Your task to perform on an android device: toggle location history Image 0: 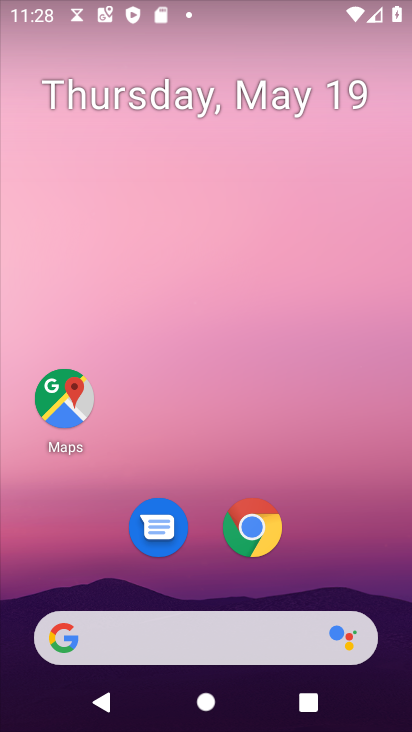
Step 0: drag from (201, 580) to (285, 1)
Your task to perform on an android device: toggle location history Image 1: 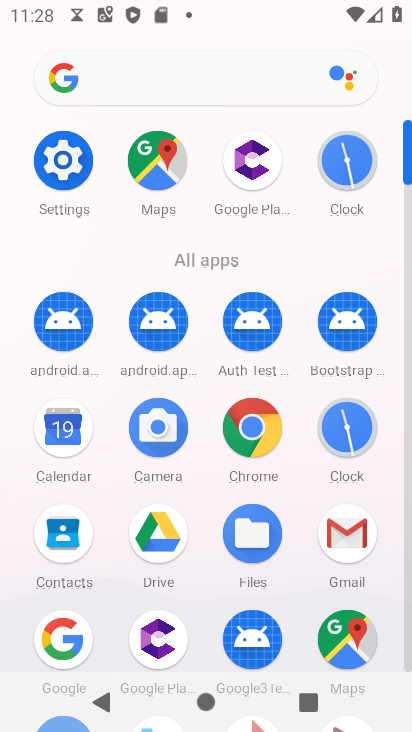
Step 1: click (68, 174)
Your task to perform on an android device: toggle location history Image 2: 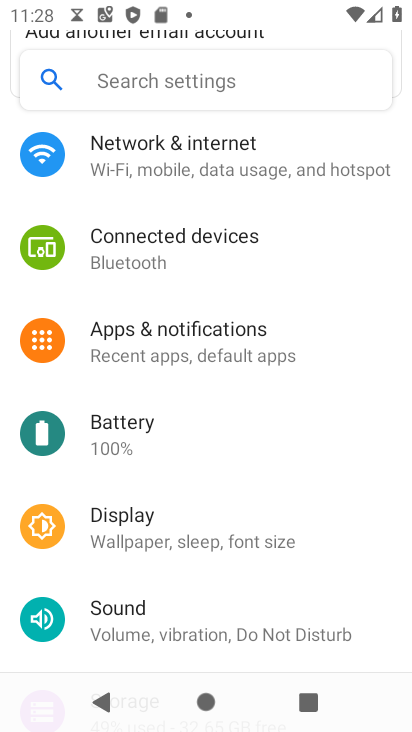
Step 2: drag from (209, 564) to (230, 358)
Your task to perform on an android device: toggle location history Image 3: 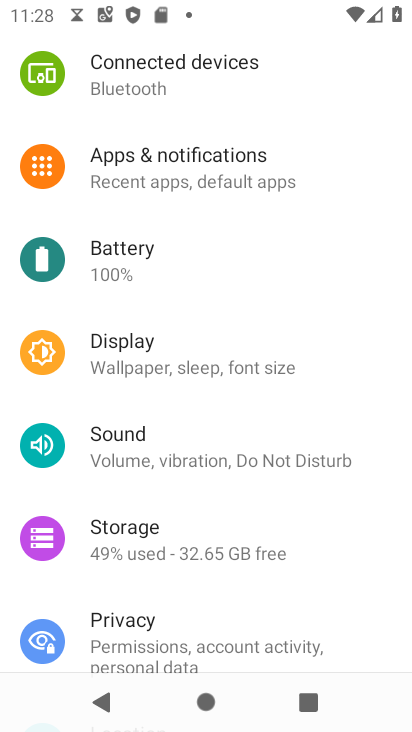
Step 3: drag from (189, 583) to (220, 289)
Your task to perform on an android device: toggle location history Image 4: 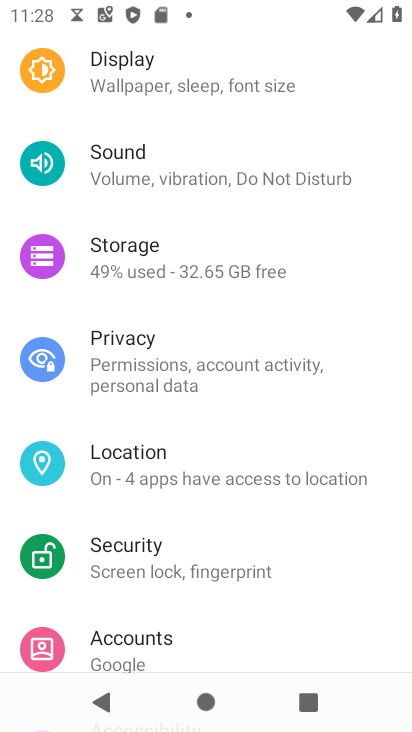
Step 4: click (174, 486)
Your task to perform on an android device: toggle location history Image 5: 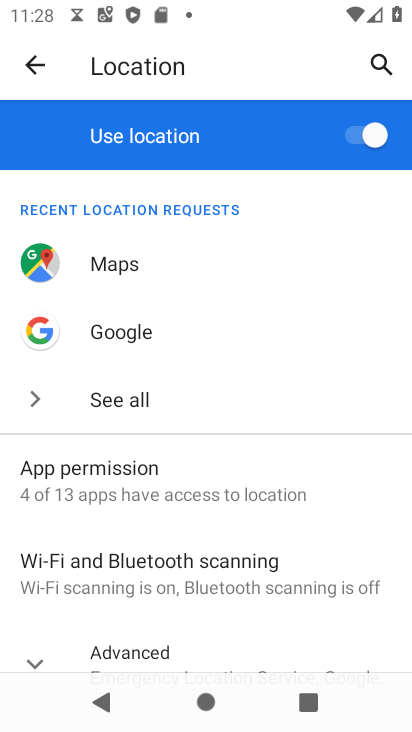
Step 5: drag from (186, 594) to (211, 312)
Your task to perform on an android device: toggle location history Image 6: 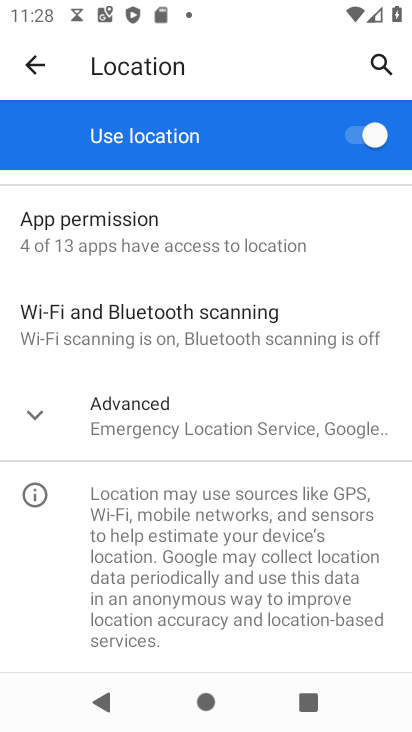
Step 6: click (188, 432)
Your task to perform on an android device: toggle location history Image 7: 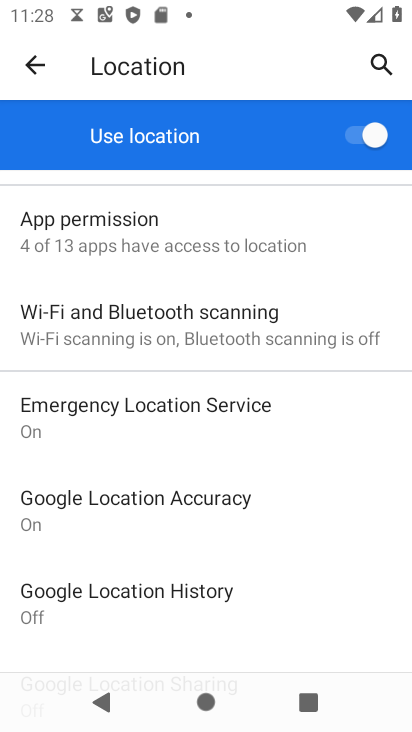
Step 7: click (181, 599)
Your task to perform on an android device: toggle location history Image 8: 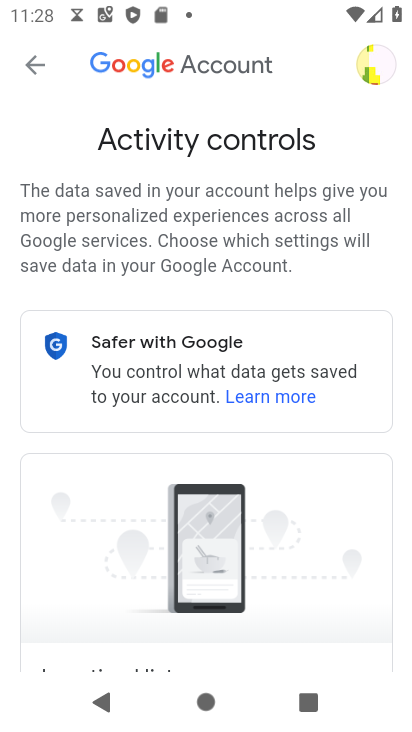
Step 8: drag from (225, 456) to (247, 213)
Your task to perform on an android device: toggle location history Image 9: 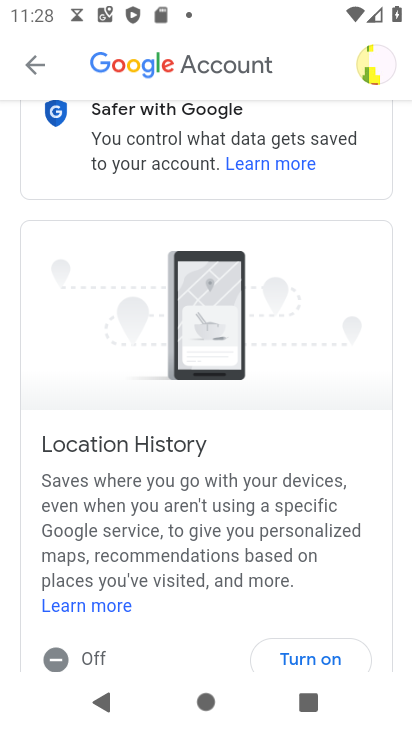
Step 9: drag from (237, 576) to (246, 411)
Your task to perform on an android device: toggle location history Image 10: 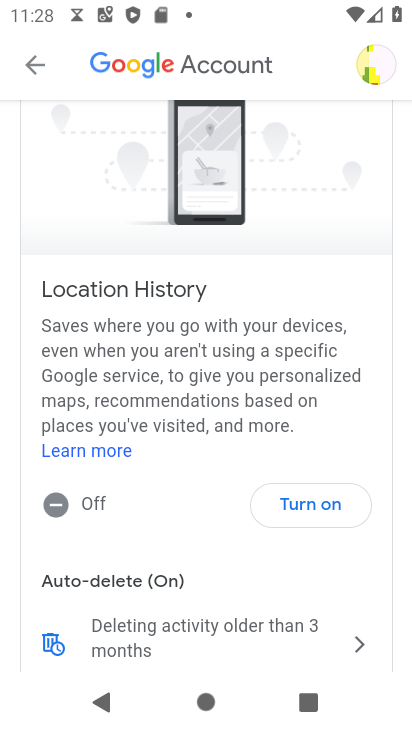
Step 10: click (291, 504)
Your task to perform on an android device: toggle location history Image 11: 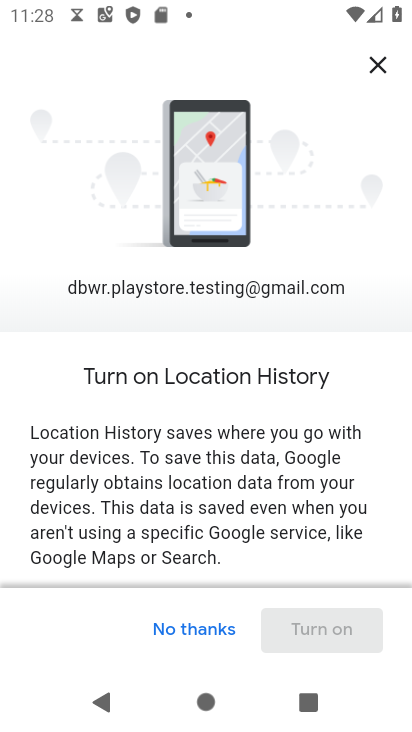
Step 11: drag from (274, 546) to (279, 119)
Your task to perform on an android device: toggle location history Image 12: 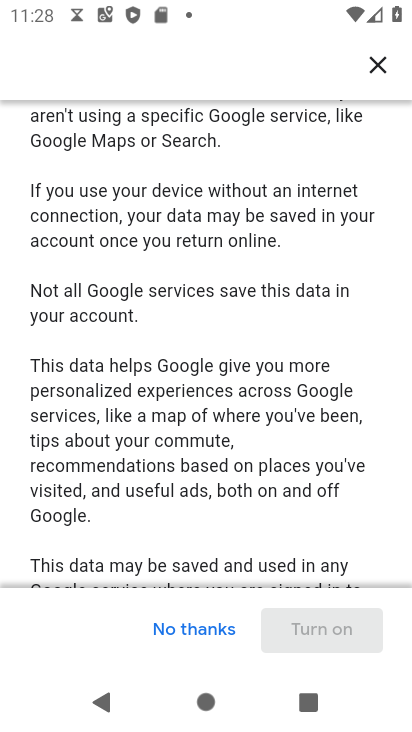
Step 12: drag from (283, 584) to (313, 77)
Your task to perform on an android device: toggle location history Image 13: 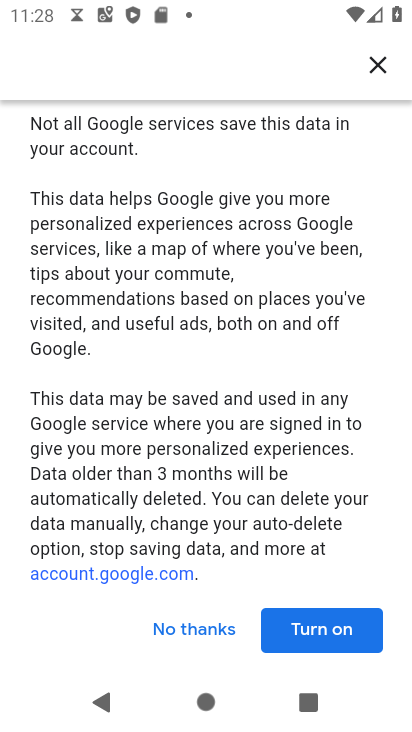
Step 13: click (298, 615)
Your task to perform on an android device: toggle location history Image 14: 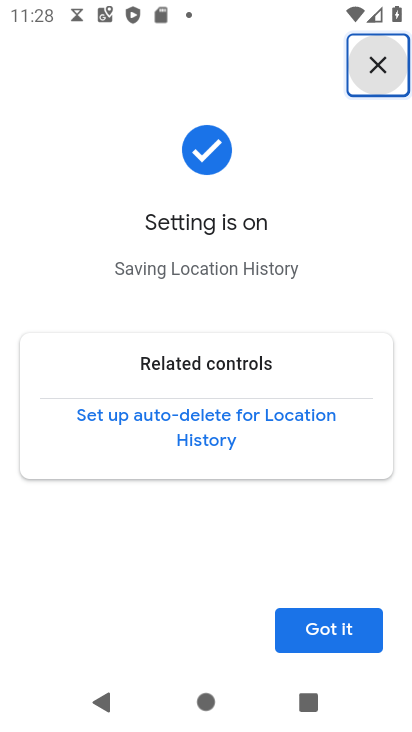
Step 14: click (298, 632)
Your task to perform on an android device: toggle location history Image 15: 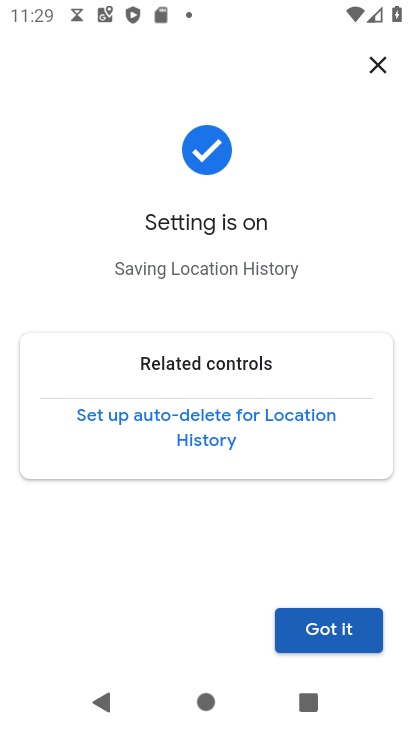
Step 15: click (335, 645)
Your task to perform on an android device: toggle location history Image 16: 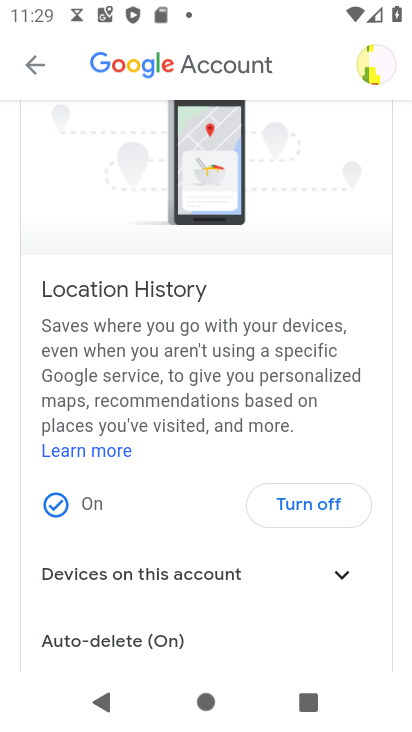
Step 16: task complete